Your task to perform on an android device: change the upload size in google photos Image 0: 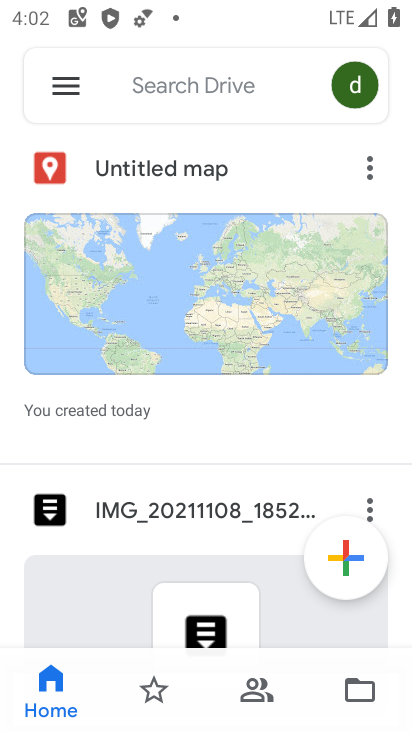
Step 0: press back button
Your task to perform on an android device: change the upload size in google photos Image 1: 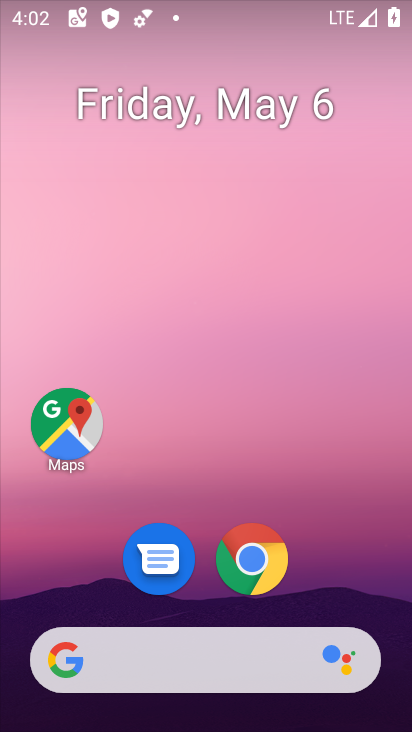
Step 1: drag from (221, 585) to (209, 213)
Your task to perform on an android device: change the upload size in google photos Image 2: 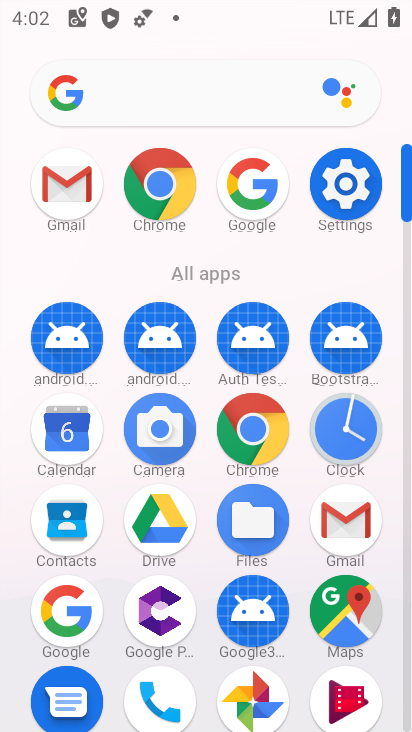
Step 2: drag from (207, 647) to (259, 272)
Your task to perform on an android device: change the upload size in google photos Image 3: 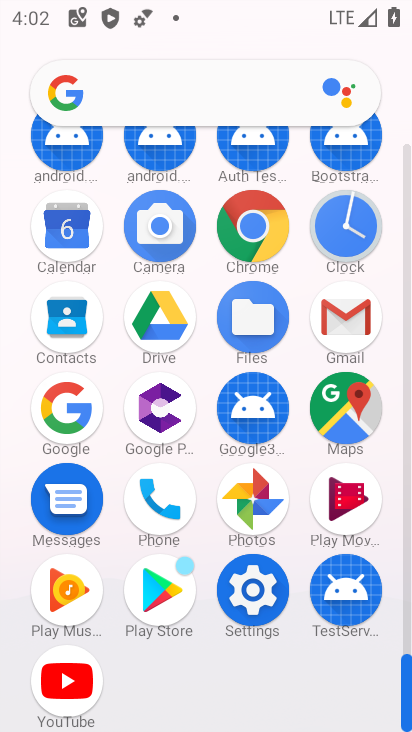
Step 3: click (260, 501)
Your task to perform on an android device: change the upload size in google photos Image 4: 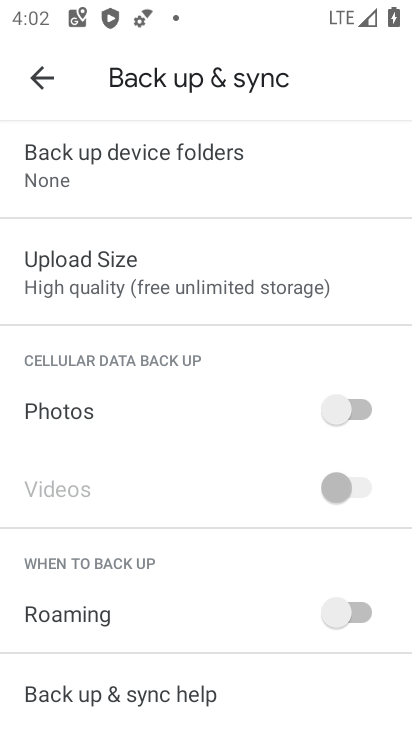
Step 4: click (101, 285)
Your task to perform on an android device: change the upload size in google photos Image 5: 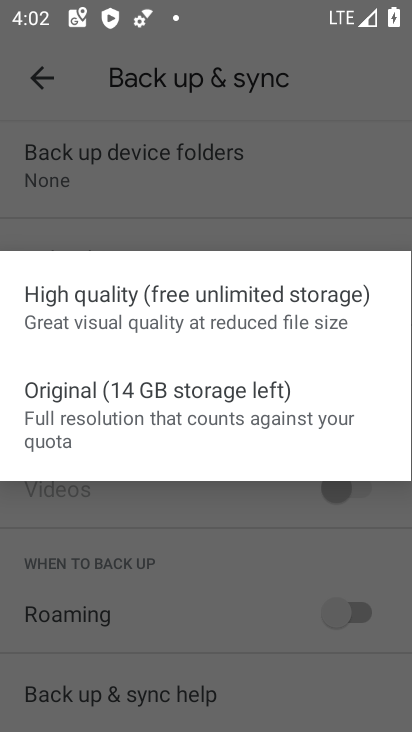
Step 5: click (101, 395)
Your task to perform on an android device: change the upload size in google photos Image 6: 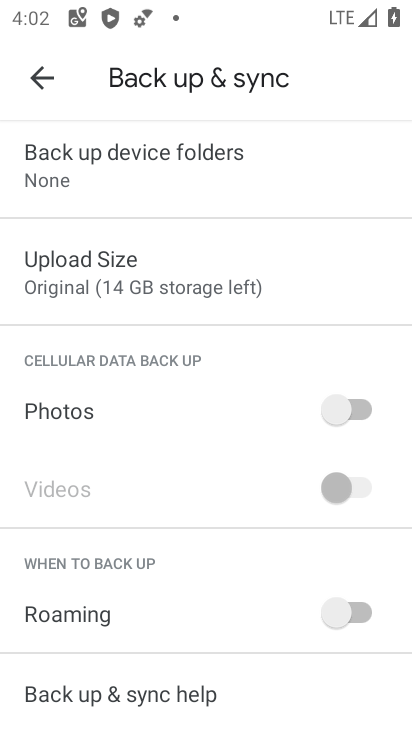
Step 6: task complete